Your task to perform on an android device: Go to settings Image 0: 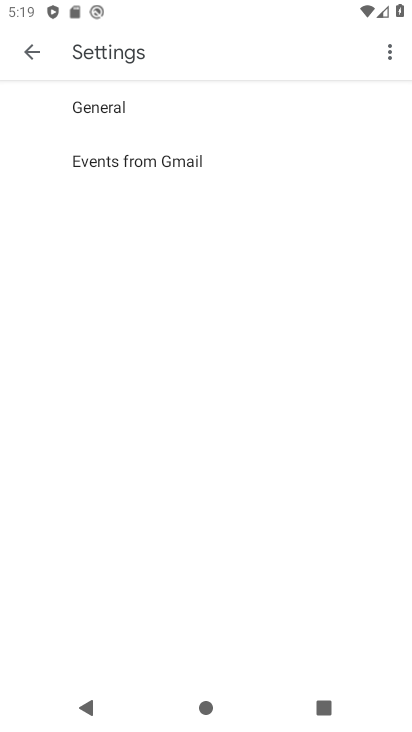
Step 0: press home button
Your task to perform on an android device: Go to settings Image 1: 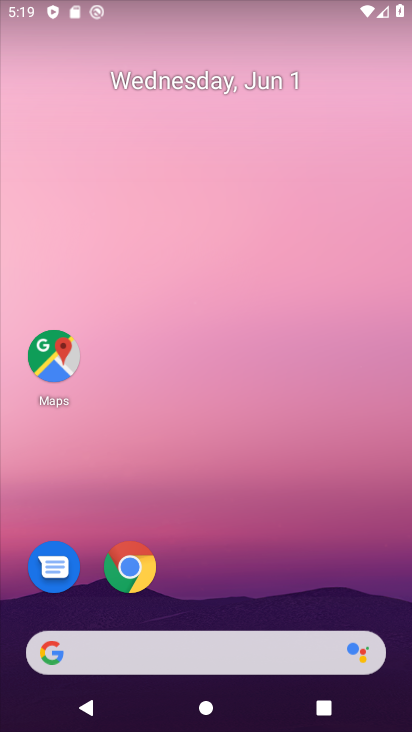
Step 1: drag from (175, 634) to (310, 4)
Your task to perform on an android device: Go to settings Image 2: 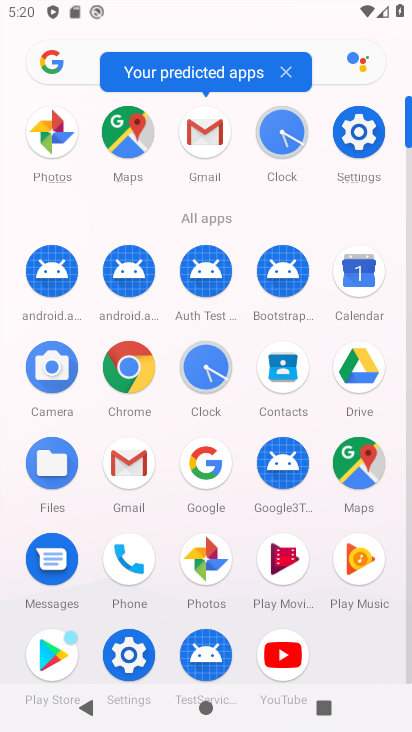
Step 2: click (123, 662)
Your task to perform on an android device: Go to settings Image 3: 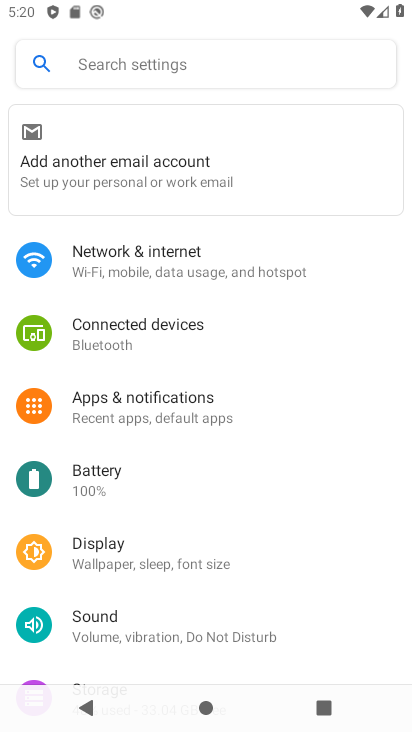
Step 3: task complete